Your task to perform on an android device: toggle javascript in the chrome app Image 0: 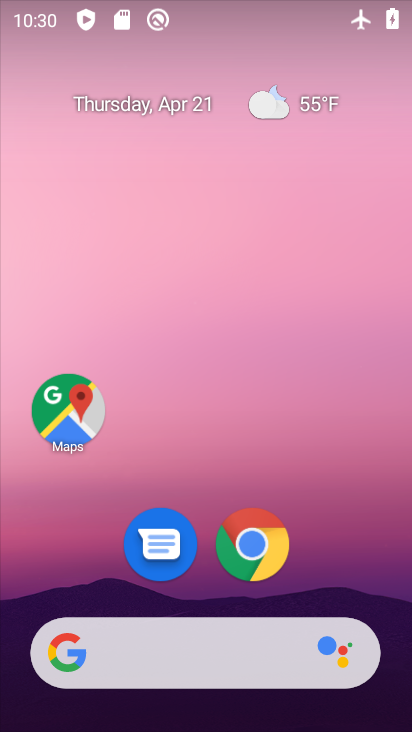
Step 0: drag from (338, 534) to (179, 37)
Your task to perform on an android device: toggle javascript in the chrome app Image 1: 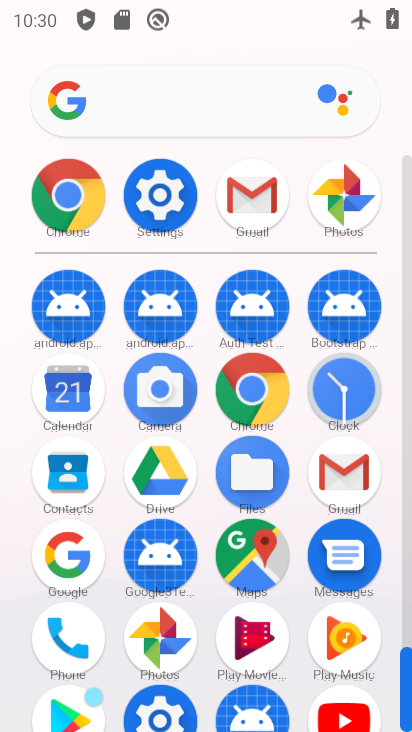
Step 1: click (63, 191)
Your task to perform on an android device: toggle javascript in the chrome app Image 2: 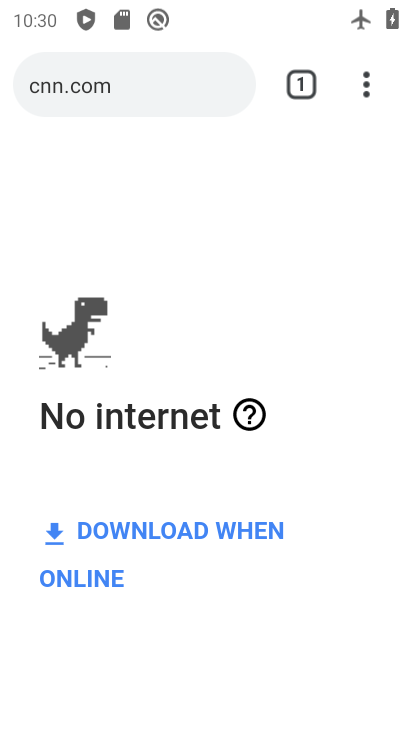
Step 2: drag from (362, 103) to (88, 592)
Your task to perform on an android device: toggle javascript in the chrome app Image 3: 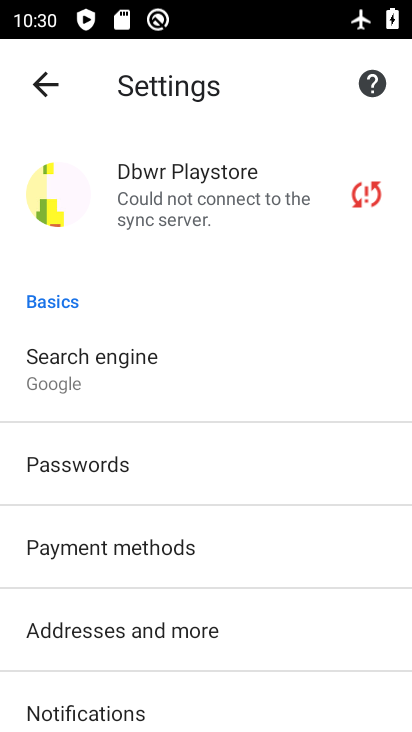
Step 3: drag from (267, 593) to (214, 171)
Your task to perform on an android device: toggle javascript in the chrome app Image 4: 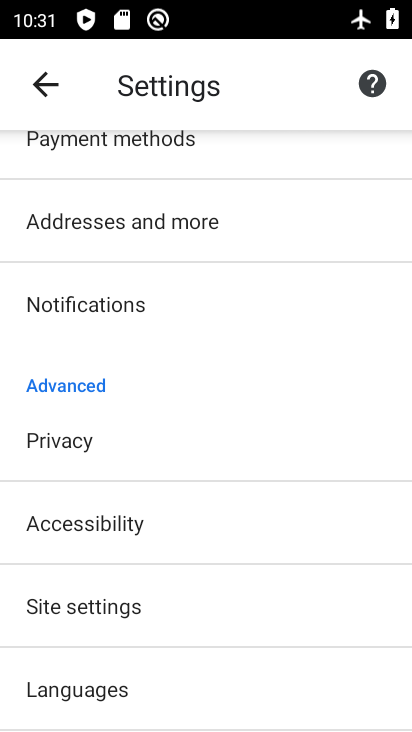
Step 4: click (200, 611)
Your task to perform on an android device: toggle javascript in the chrome app Image 5: 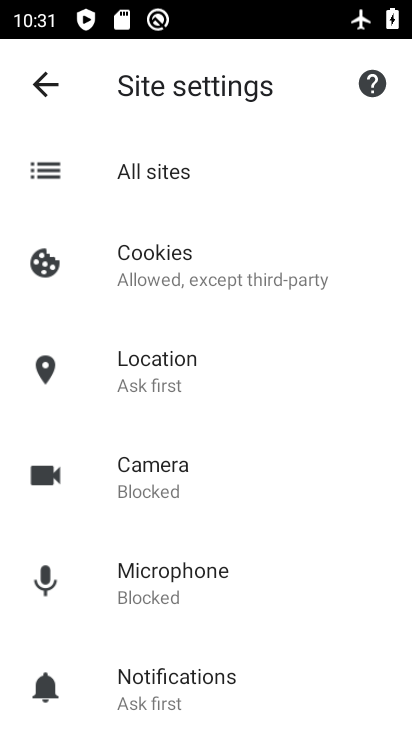
Step 5: drag from (231, 528) to (236, 230)
Your task to perform on an android device: toggle javascript in the chrome app Image 6: 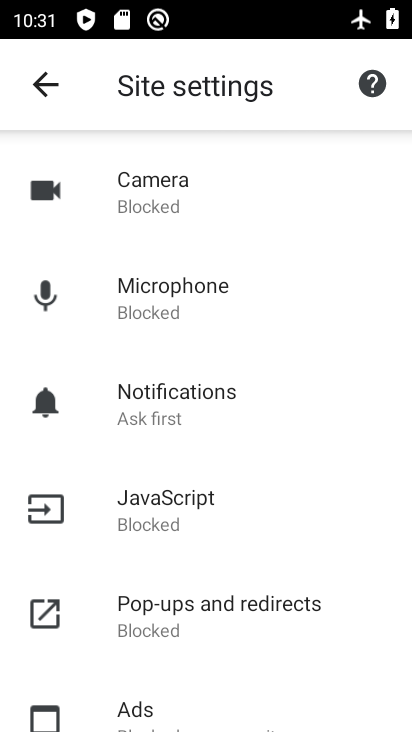
Step 6: click (183, 478)
Your task to perform on an android device: toggle javascript in the chrome app Image 7: 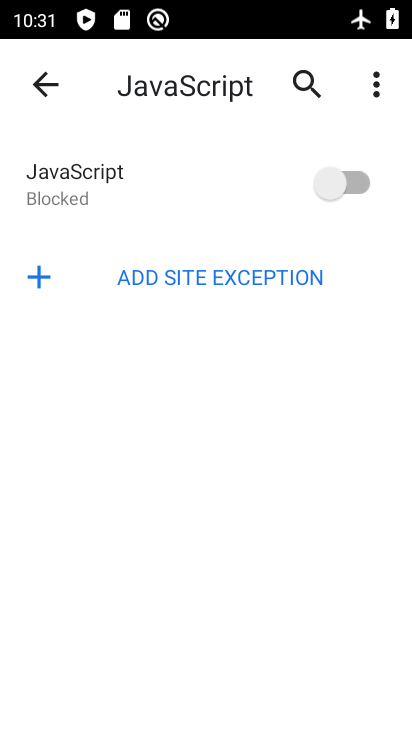
Step 7: click (346, 174)
Your task to perform on an android device: toggle javascript in the chrome app Image 8: 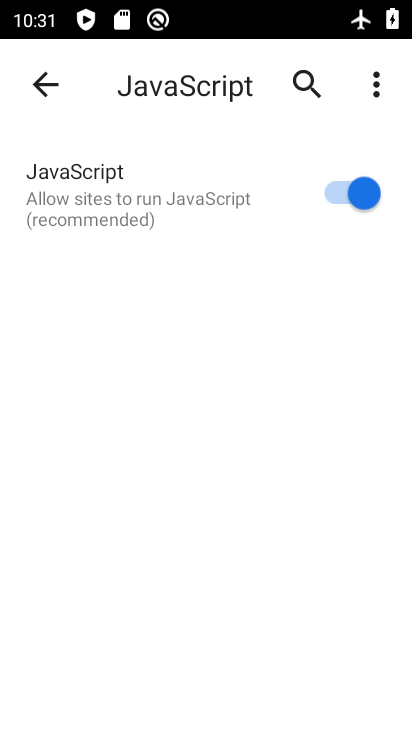
Step 8: task complete